Your task to perform on an android device: Search for pizza restaurants on Maps Image 0: 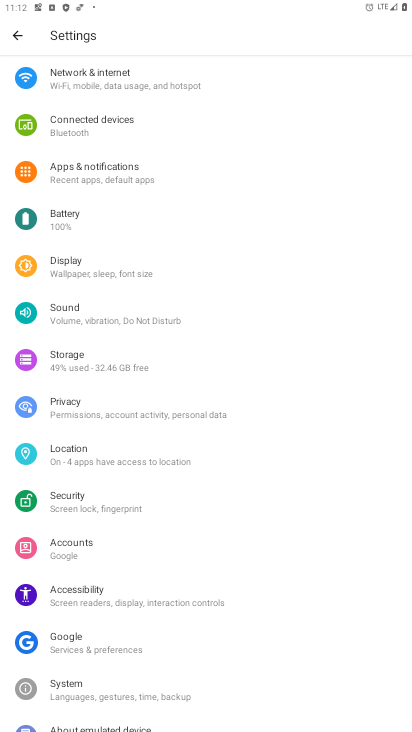
Step 0: press home button
Your task to perform on an android device: Search for pizza restaurants on Maps Image 1: 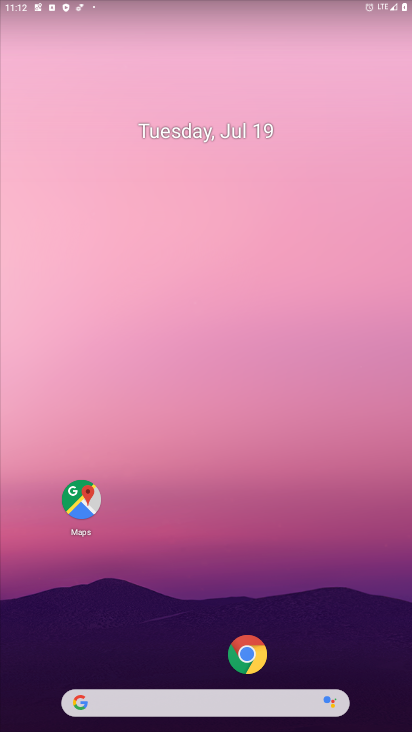
Step 1: click (70, 520)
Your task to perform on an android device: Search for pizza restaurants on Maps Image 2: 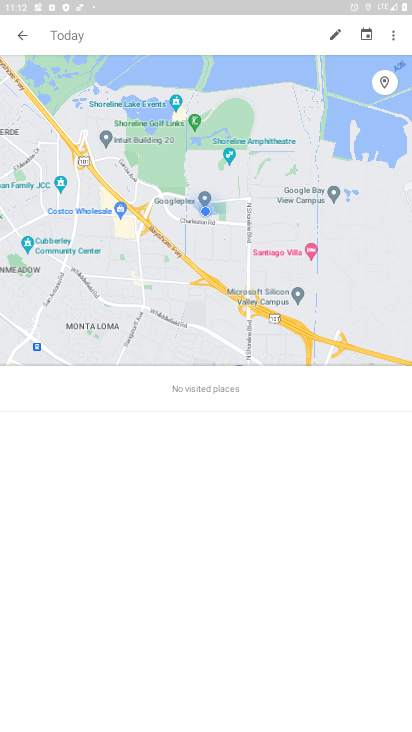
Step 2: click (28, 33)
Your task to perform on an android device: Search for pizza restaurants on Maps Image 3: 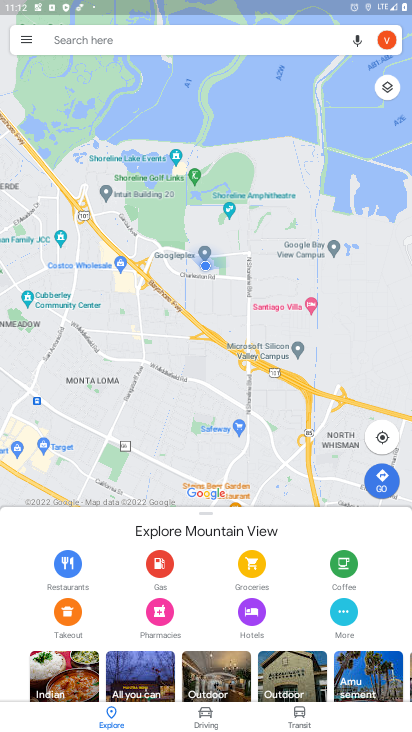
Step 3: click (96, 36)
Your task to perform on an android device: Search for pizza restaurants on Maps Image 4: 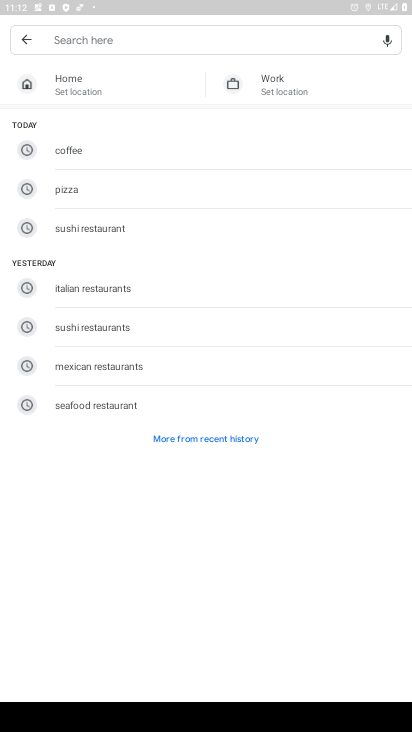
Step 4: click (117, 195)
Your task to perform on an android device: Search for pizza restaurants on Maps Image 5: 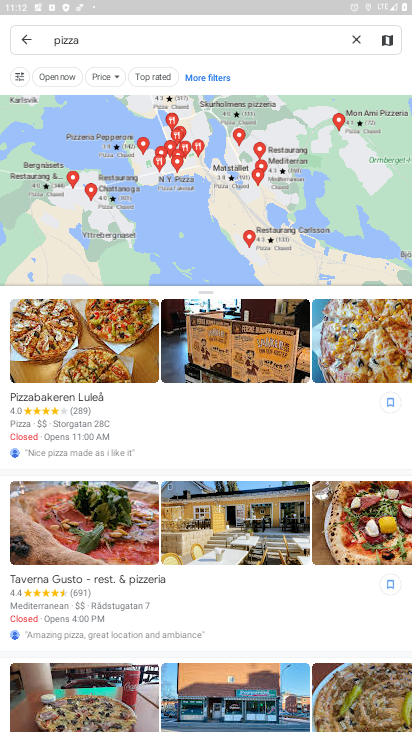
Step 5: task complete